Your task to perform on an android device: What's the weather today? Image 0: 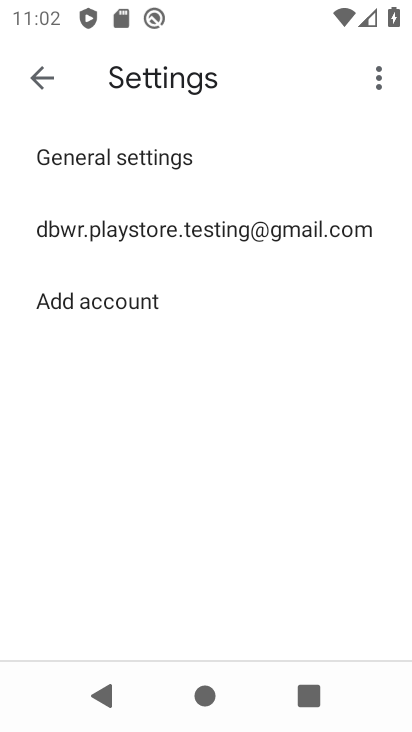
Step 0: press home button
Your task to perform on an android device: What's the weather today? Image 1: 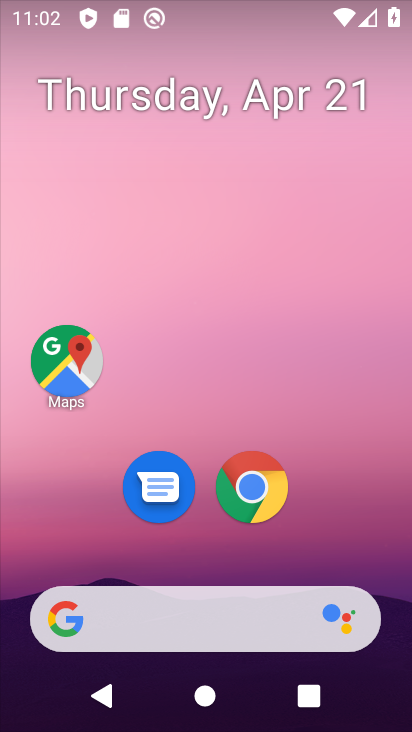
Step 1: click (175, 636)
Your task to perform on an android device: What's the weather today? Image 2: 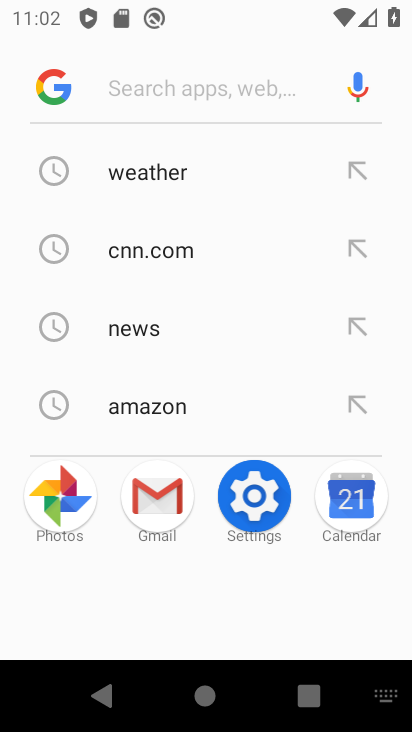
Step 2: type "weather today"
Your task to perform on an android device: What's the weather today? Image 3: 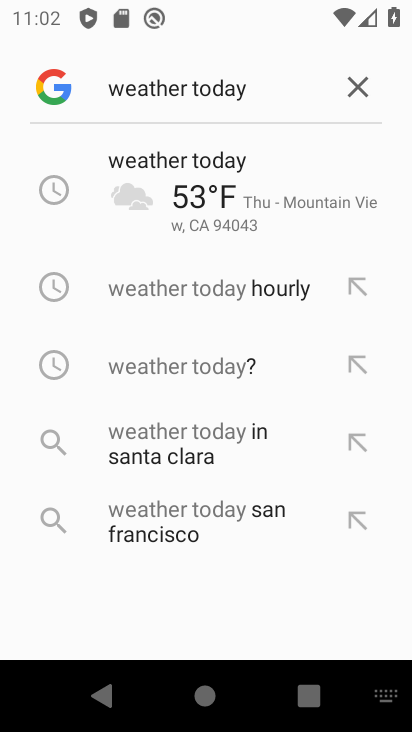
Step 3: click (222, 156)
Your task to perform on an android device: What's the weather today? Image 4: 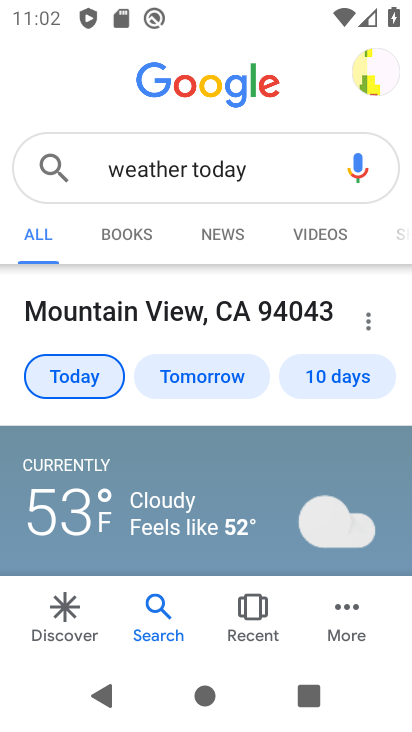
Step 4: task complete